Your task to perform on an android device: turn off airplane mode Image 0: 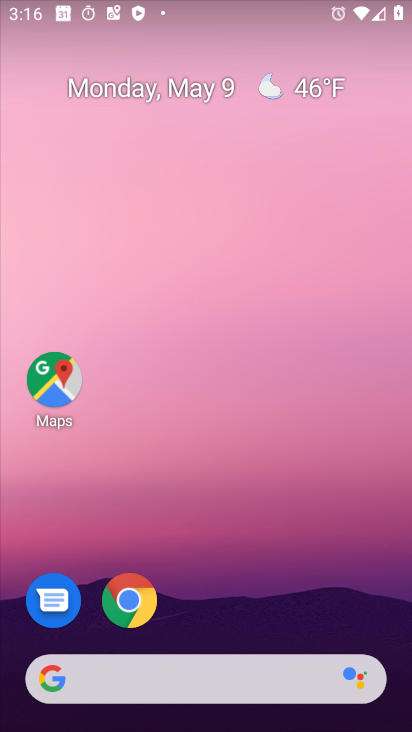
Step 0: drag from (302, 33) to (291, 500)
Your task to perform on an android device: turn off airplane mode Image 1: 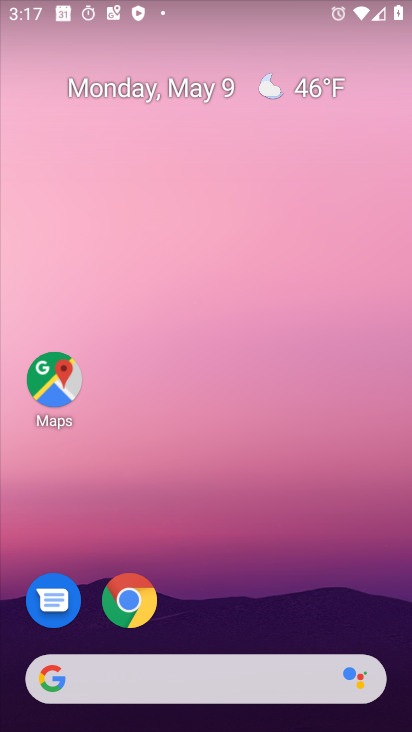
Step 1: task complete